Your task to perform on an android device: delete the emails in spam in the gmail app Image 0: 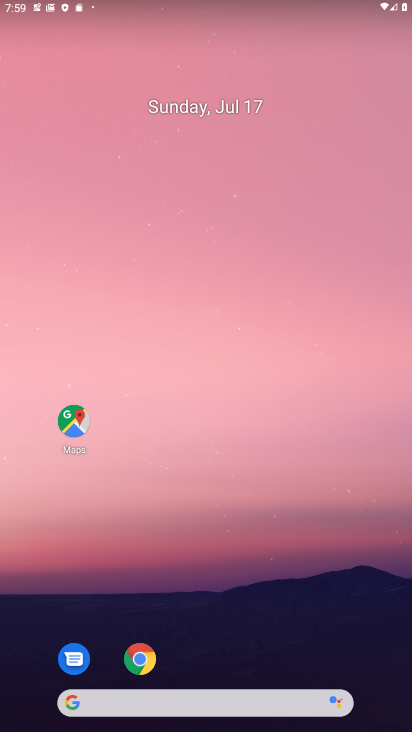
Step 0: drag from (199, 663) to (166, 211)
Your task to perform on an android device: delete the emails in spam in the gmail app Image 1: 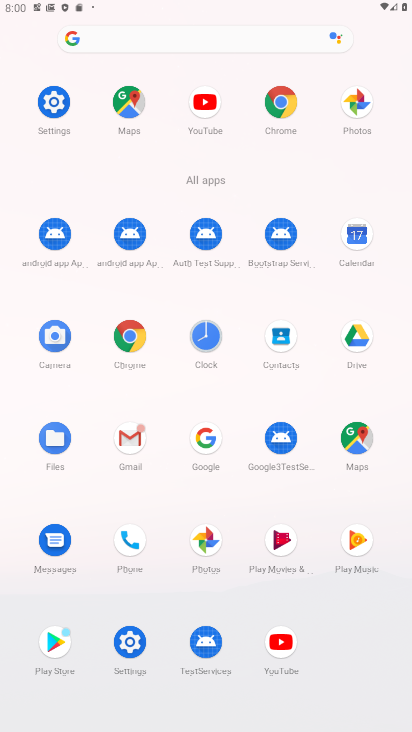
Step 1: click (133, 442)
Your task to perform on an android device: delete the emails in spam in the gmail app Image 2: 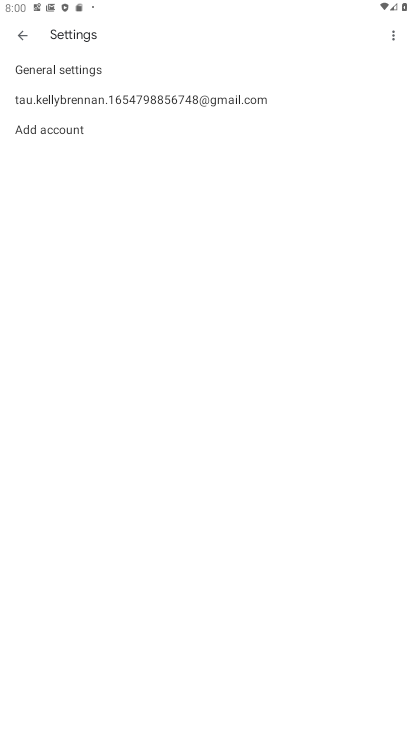
Step 2: click (63, 87)
Your task to perform on an android device: delete the emails in spam in the gmail app Image 3: 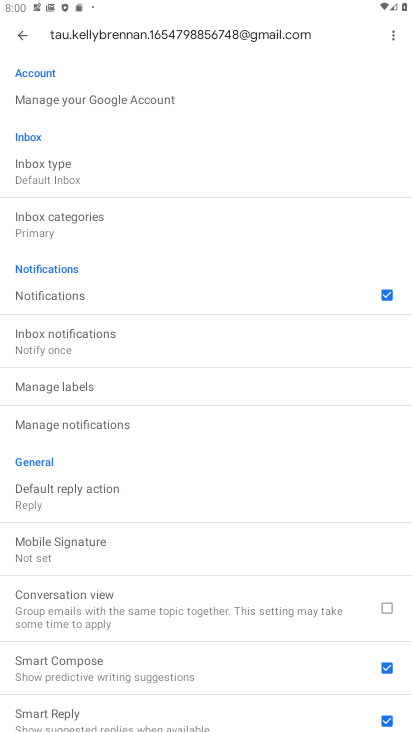
Step 3: click (13, 33)
Your task to perform on an android device: delete the emails in spam in the gmail app Image 4: 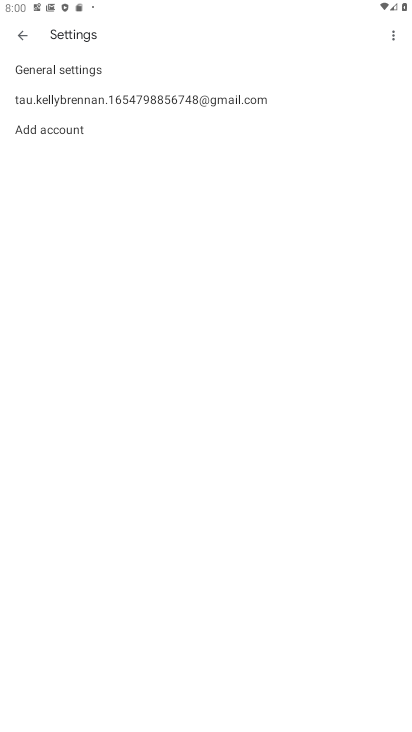
Step 4: click (24, 26)
Your task to perform on an android device: delete the emails in spam in the gmail app Image 5: 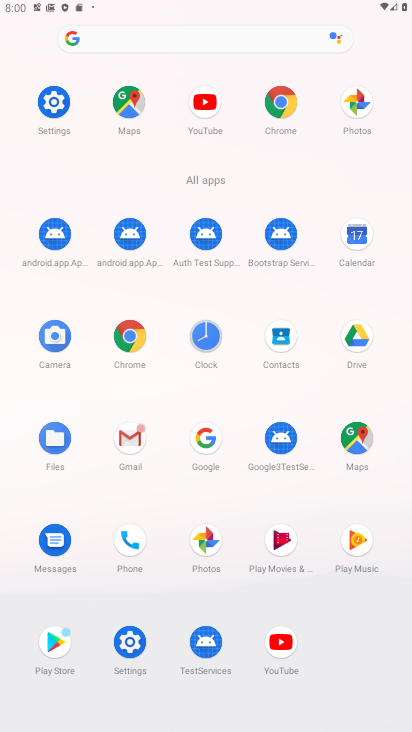
Step 5: click (133, 432)
Your task to perform on an android device: delete the emails in spam in the gmail app Image 6: 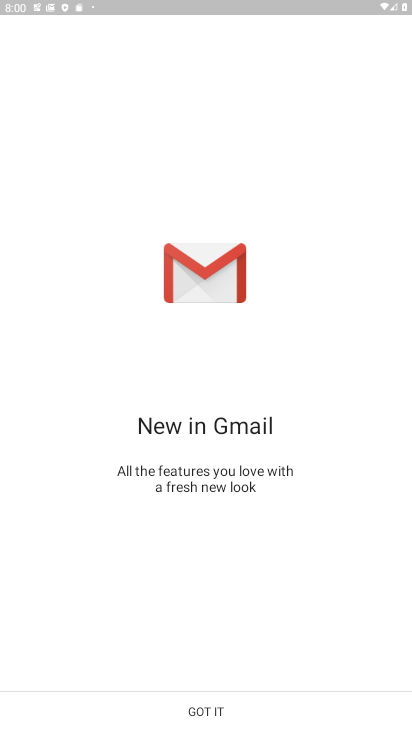
Step 6: click (217, 705)
Your task to perform on an android device: delete the emails in spam in the gmail app Image 7: 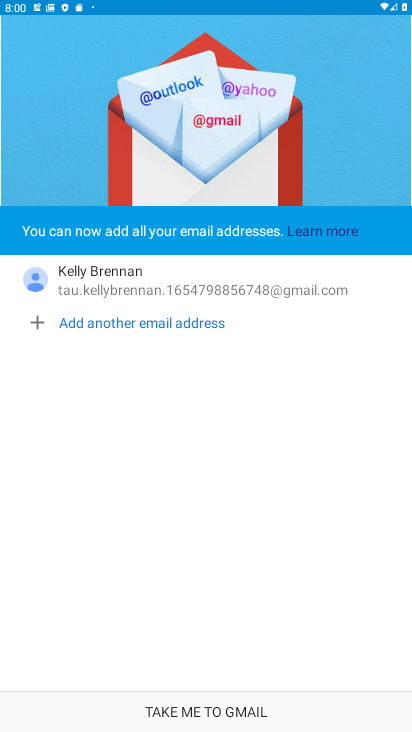
Step 7: click (216, 697)
Your task to perform on an android device: delete the emails in spam in the gmail app Image 8: 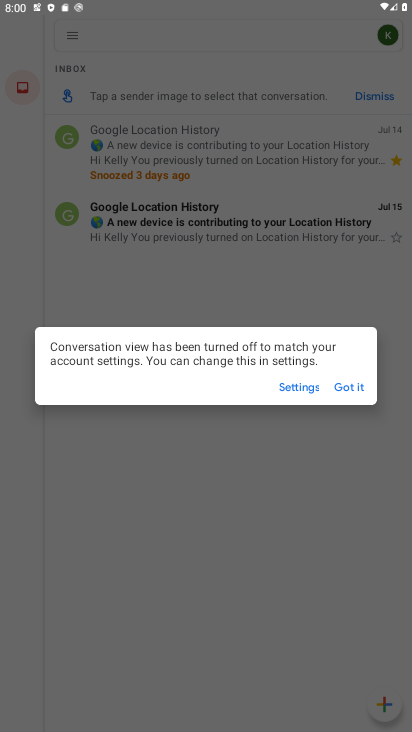
Step 8: click (356, 388)
Your task to perform on an android device: delete the emails in spam in the gmail app Image 9: 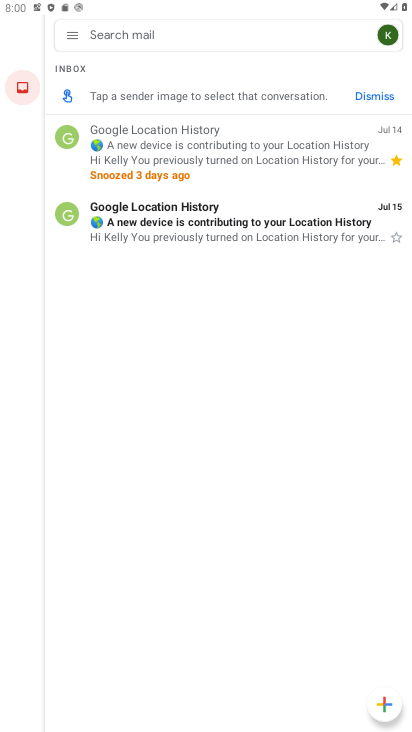
Step 9: click (18, 95)
Your task to perform on an android device: delete the emails in spam in the gmail app Image 10: 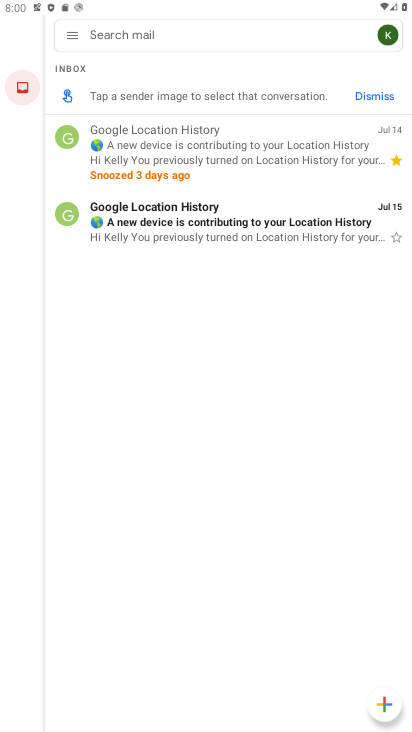
Step 10: click (65, 37)
Your task to perform on an android device: delete the emails in spam in the gmail app Image 11: 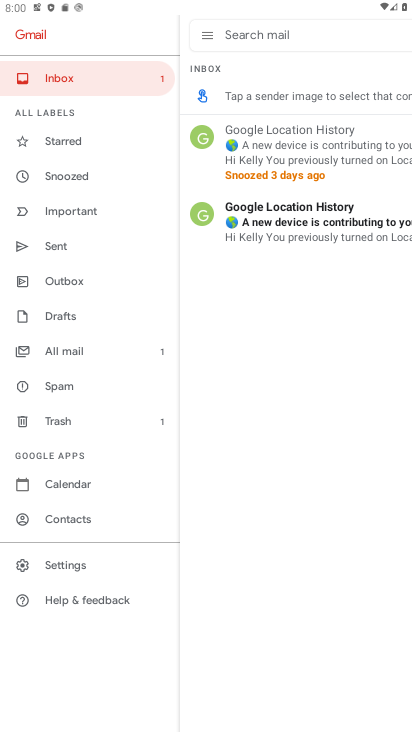
Step 11: click (67, 386)
Your task to perform on an android device: delete the emails in spam in the gmail app Image 12: 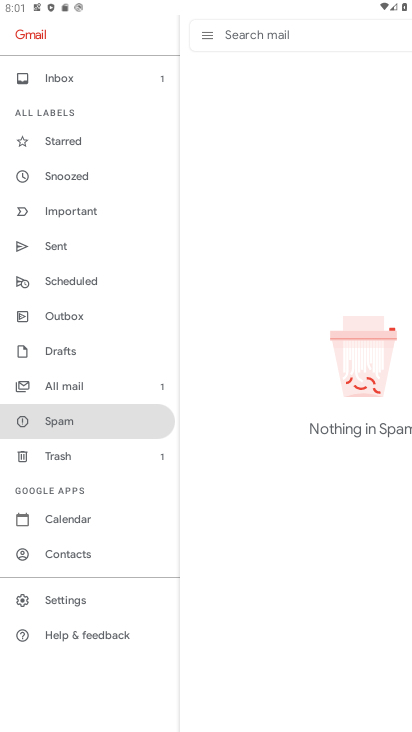
Step 12: task complete